Your task to perform on an android device: add a label to a message in the gmail app Image 0: 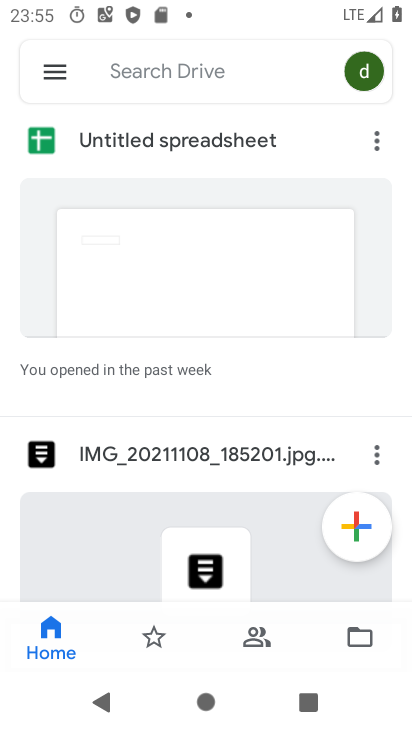
Step 0: press home button
Your task to perform on an android device: add a label to a message in the gmail app Image 1: 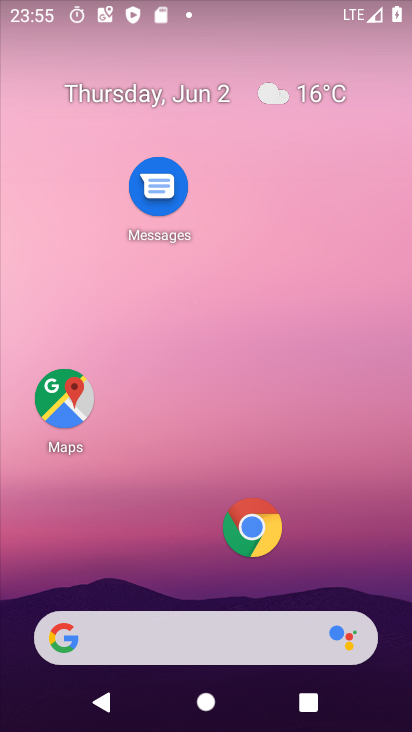
Step 1: drag from (226, 509) to (271, 4)
Your task to perform on an android device: add a label to a message in the gmail app Image 2: 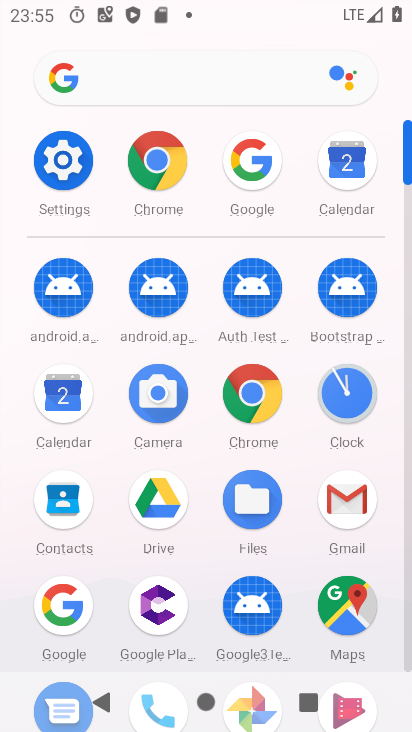
Step 2: click (343, 494)
Your task to perform on an android device: add a label to a message in the gmail app Image 3: 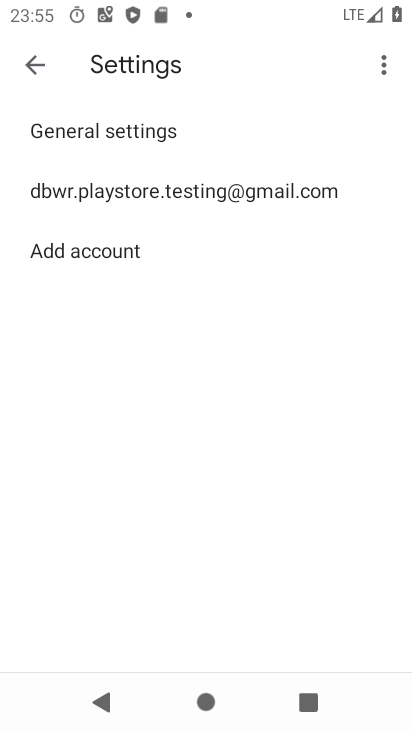
Step 3: click (38, 62)
Your task to perform on an android device: add a label to a message in the gmail app Image 4: 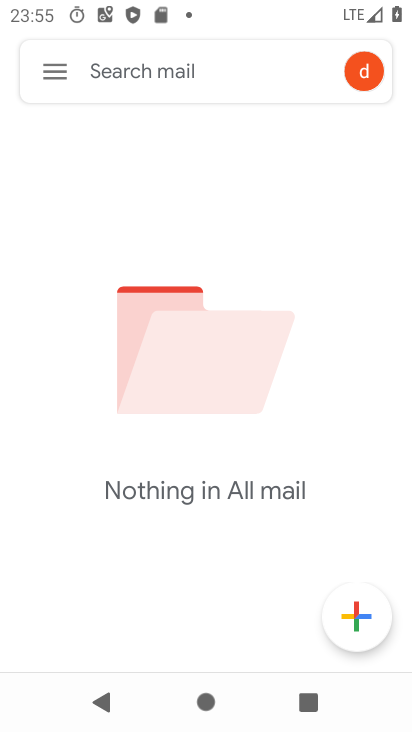
Step 4: task complete